Your task to perform on an android device: Open Wikipedia Image 0: 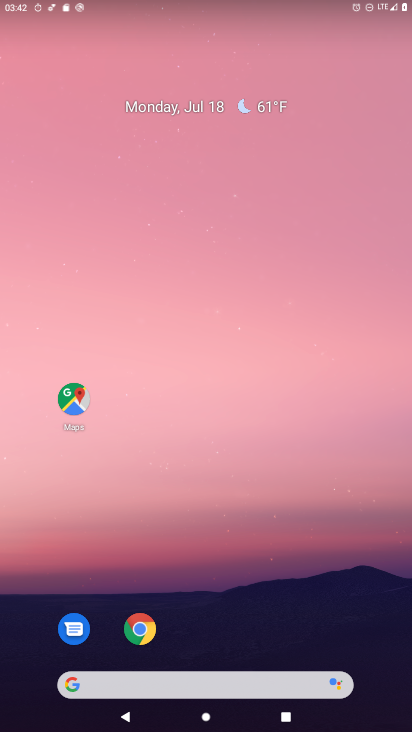
Step 0: click (141, 630)
Your task to perform on an android device: Open Wikipedia Image 1: 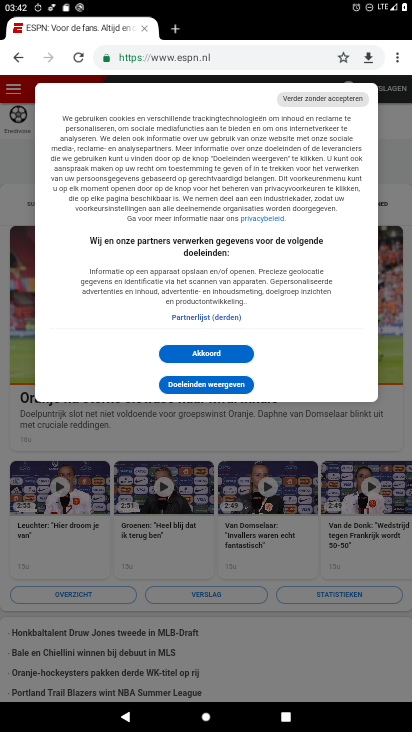
Step 1: click (260, 58)
Your task to perform on an android device: Open Wikipedia Image 2: 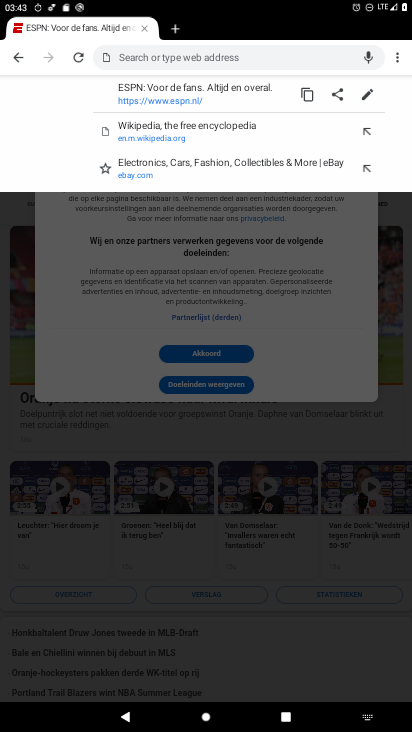
Step 2: type "Wikipedia"
Your task to perform on an android device: Open Wikipedia Image 3: 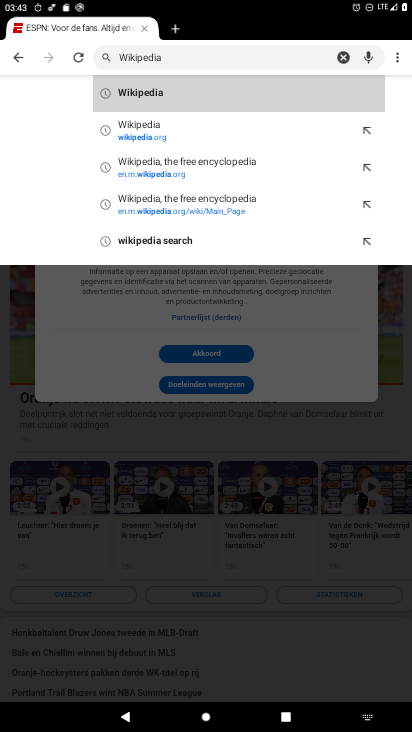
Step 3: click (153, 104)
Your task to perform on an android device: Open Wikipedia Image 4: 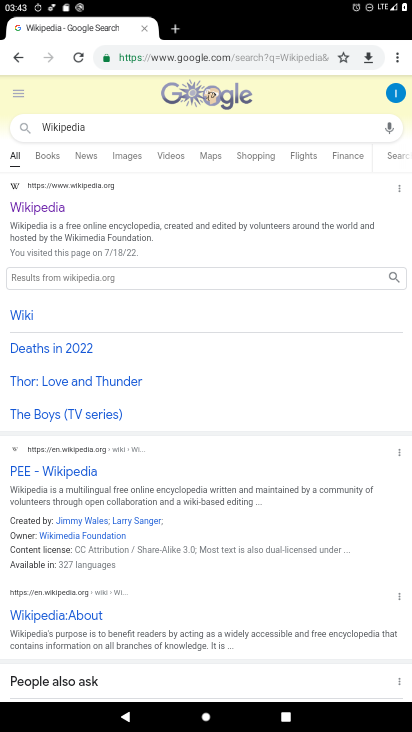
Step 4: click (49, 203)
Your task to perform on an android device: Open Wikipedia Image 5: 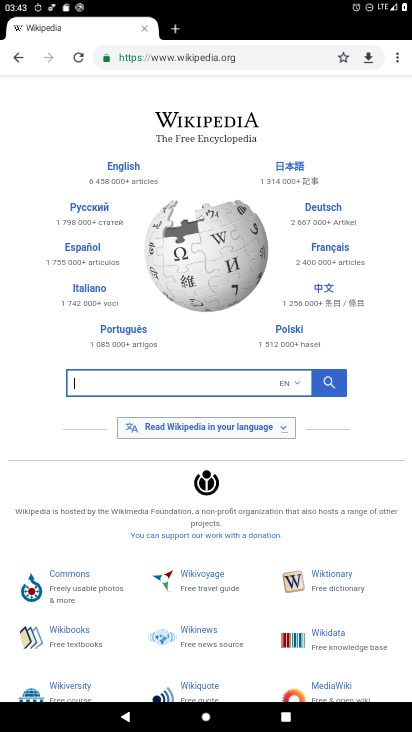
Step 5: task complete